Your task to perform on an android device: Go to internet settings Image 0: 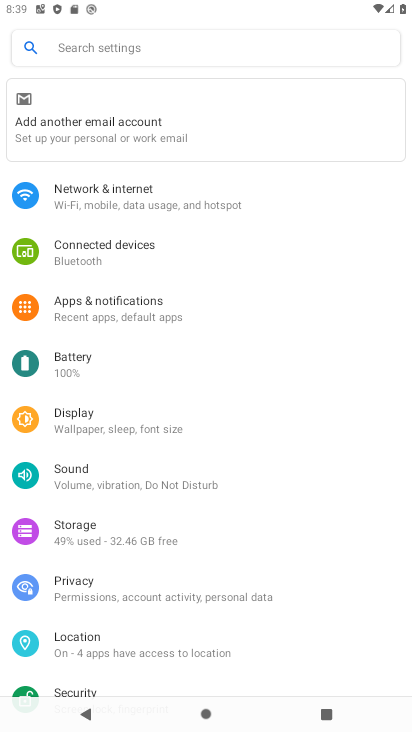
Step 0: click (182, 187)
Your task to perform on an android device: Go to internet settings Image 1: 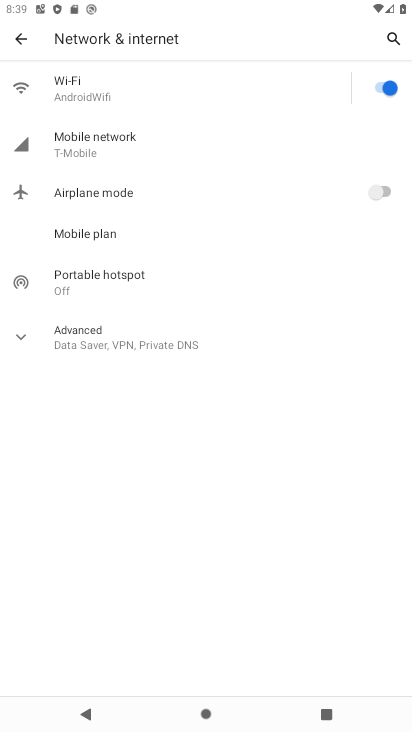
Step 1: task complete